Your task to perform on an android device: turn pop-ups on in chrome Image 0: 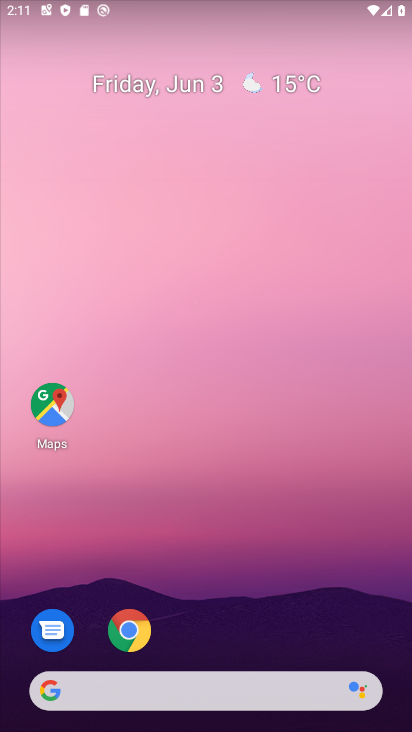
Step 0: drag from (261, 538) to (192, 30)
Your task to perform on an android device: turn pop-ups on in chrome Image 1: 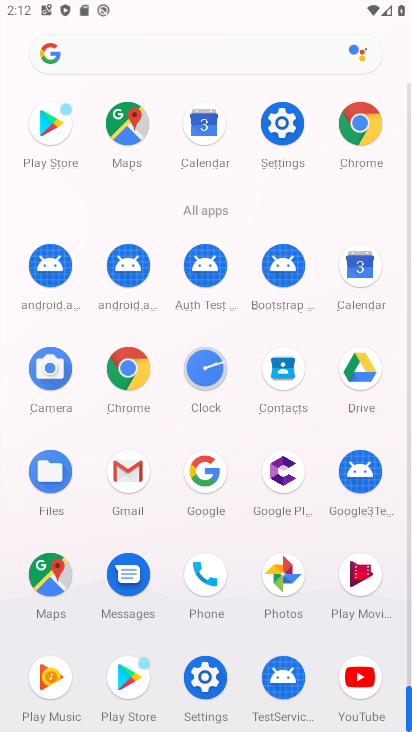
Step 1: click (132, 368)
Your task to perform on an android device: turn pop-ups on in chrome Image 2: 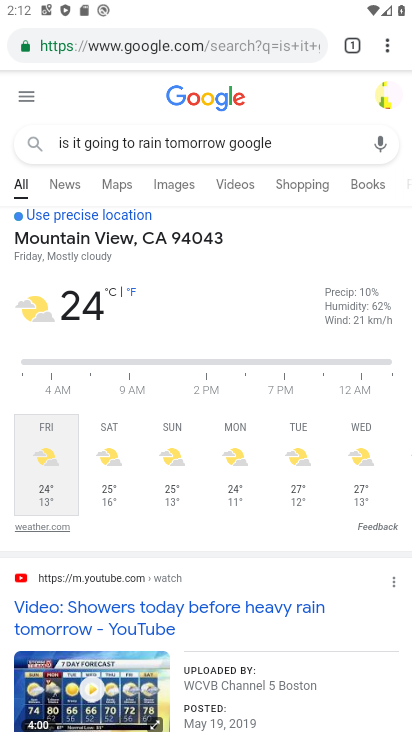
Step 2: drag from (386, 41) to (292, 515)
Your task to perform on an android device: turn pop-ups on in chrome Image 3: 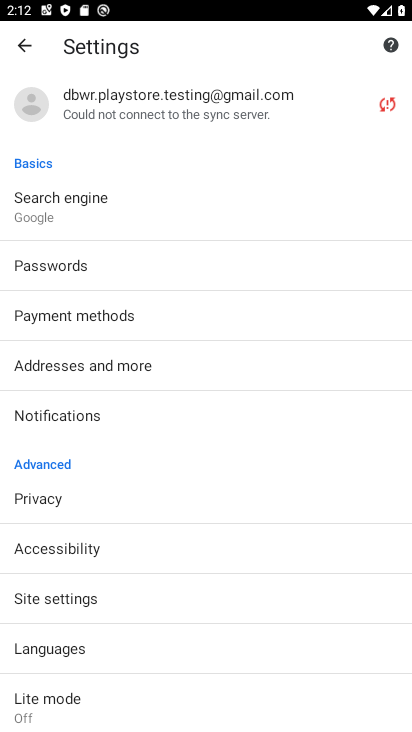
Step 3: click (74, 599)
Your task to perform on an android device: turn pop-ups on in chrome Image 4: 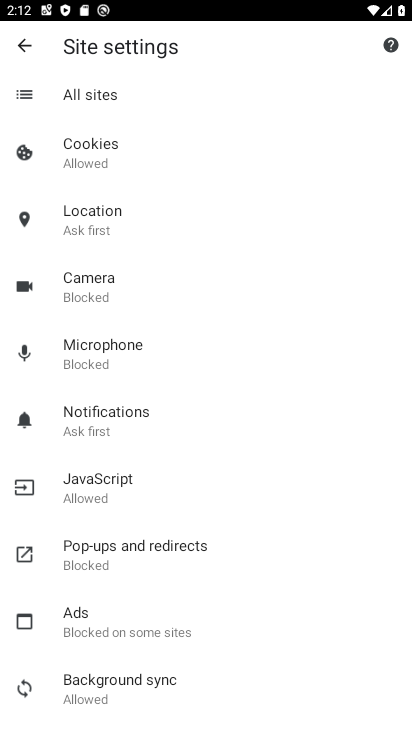
Step 4: click (94, 549)
Your task to perform on an android device: turn pop-ups on in chrome Image 5: 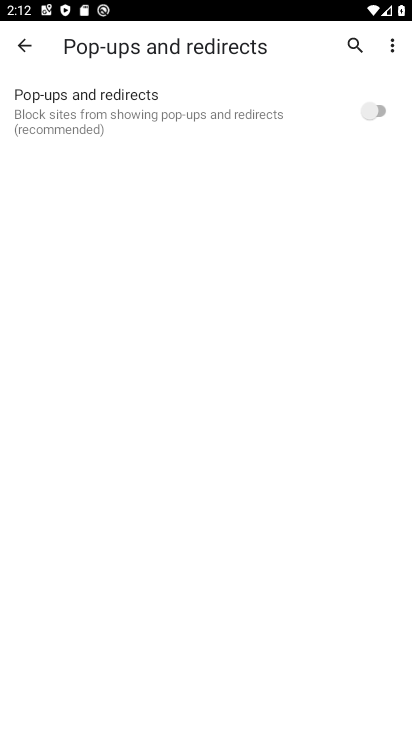
Step 5: click (375, 103)
Your task to perform on an android device: turn pop-ups on in chrome Image 6: 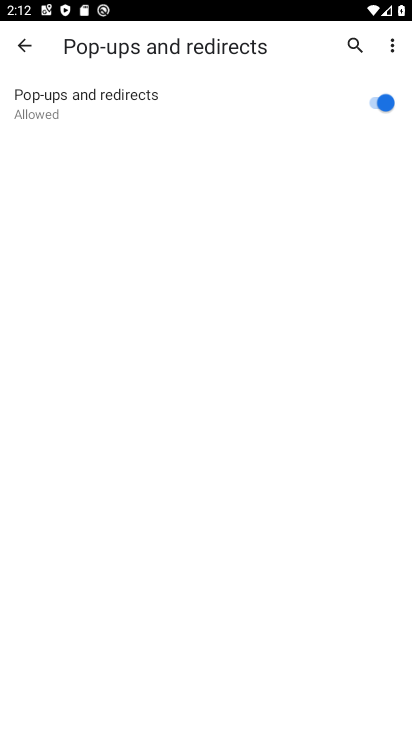
Step 6: task complete